Your task to perform on an android device: Open Google Image 0: 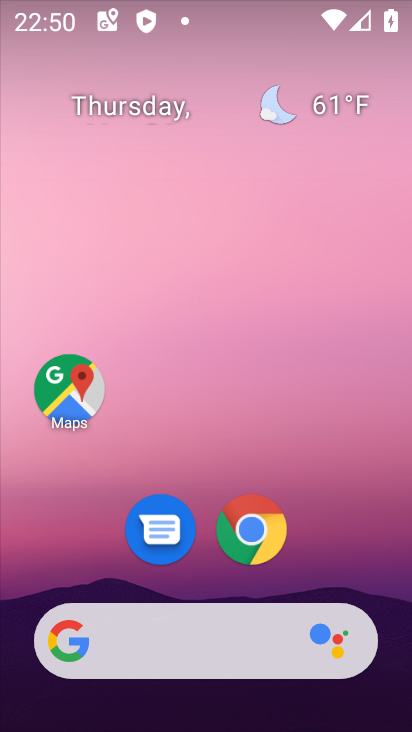
Step 0: click (224, 634)
Your task to perform on an android device: Open Google Image 1: 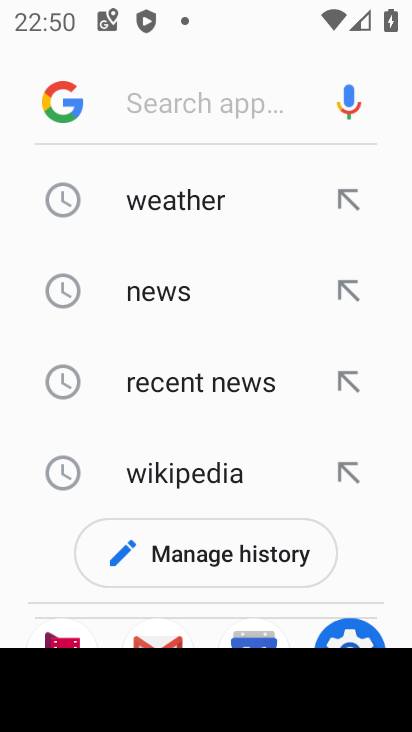
Step 1: type "google.com"
Your task to perform on an android device: Open Google Image 2: 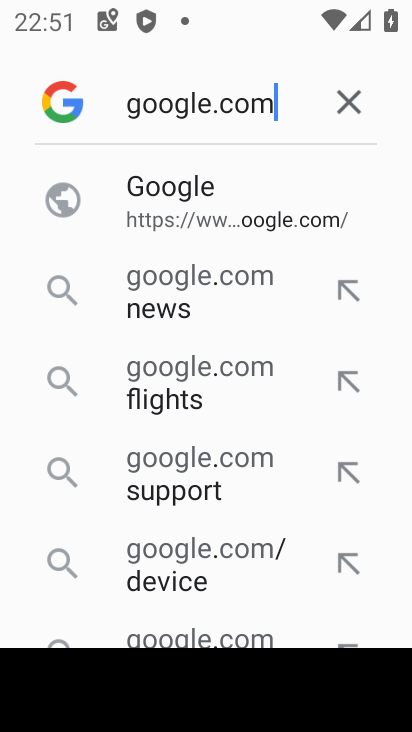
Step 2: click (147, 219)
Your task to perform on an android device: Open Google Image 3: 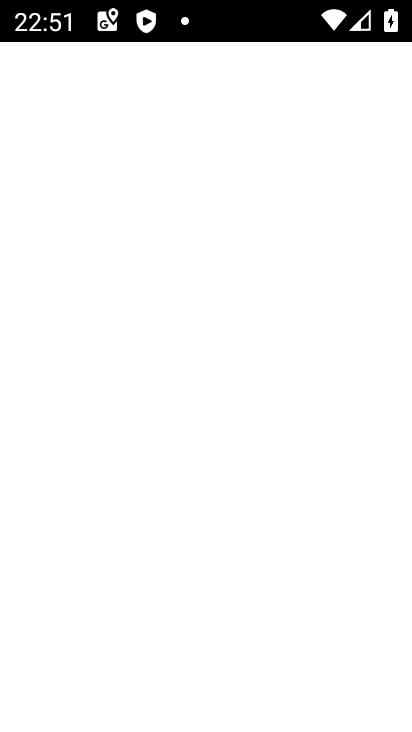
Step 3: task complete